Your task to perform on an android device: turn on sleep mode Image 0: 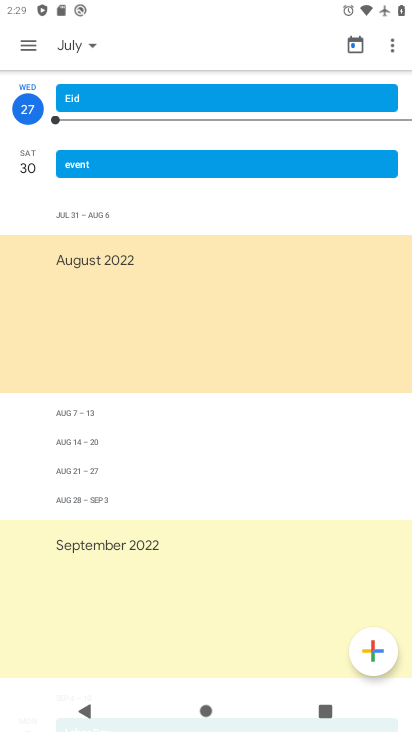
Step 0: press home button
Your task to perform on an android device: turn on sleep mode Image 1: 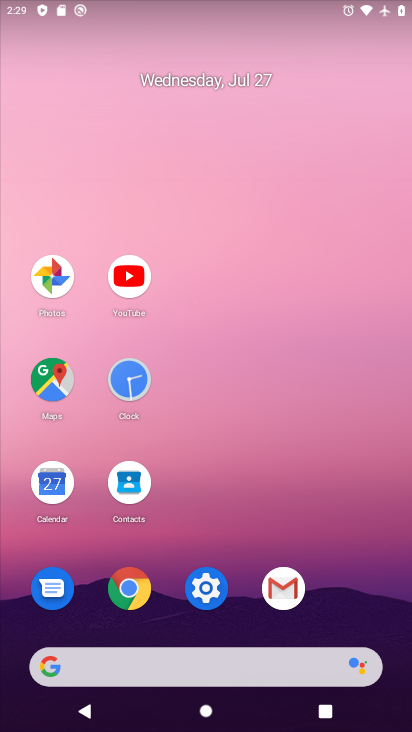
Step 1: click (208, 590)
Your task to perform on an android device: turn on sleep mode Image 2: 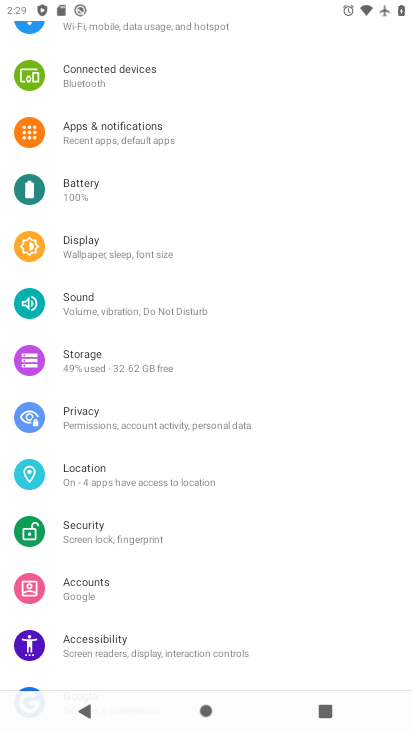
Step 2: click (82, 232)
Your task to perform on an android device: turn on sleep mode Image 3: 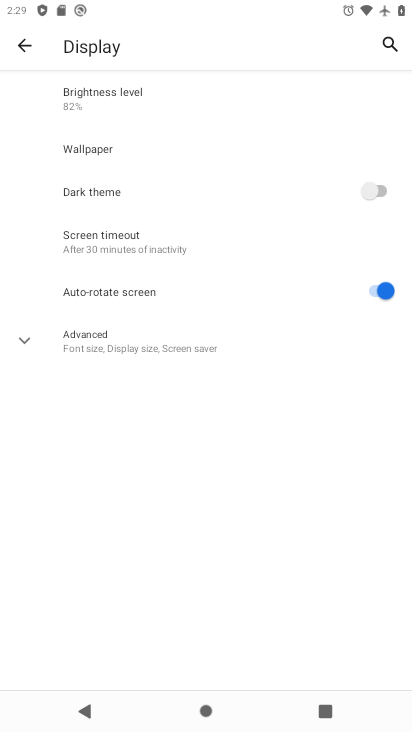
Step 3: task complete